Your task to perform on an android device: Open Chrome and go to settings Image 0: 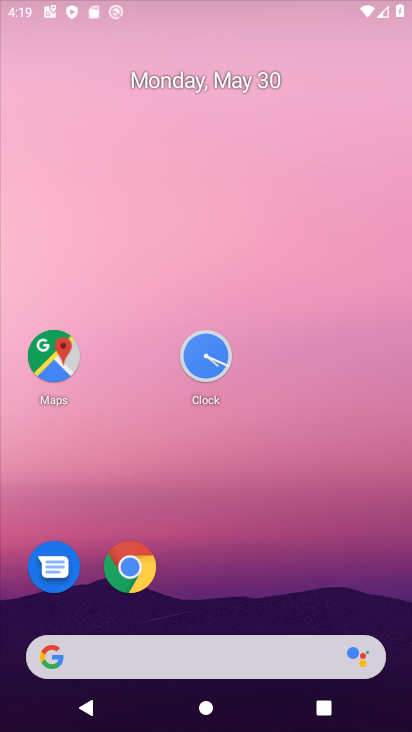
Step 0: drag from (279, 683) to (171, 199)
Your task to perform on an android device: Open Chrome and go to settings Image 1: 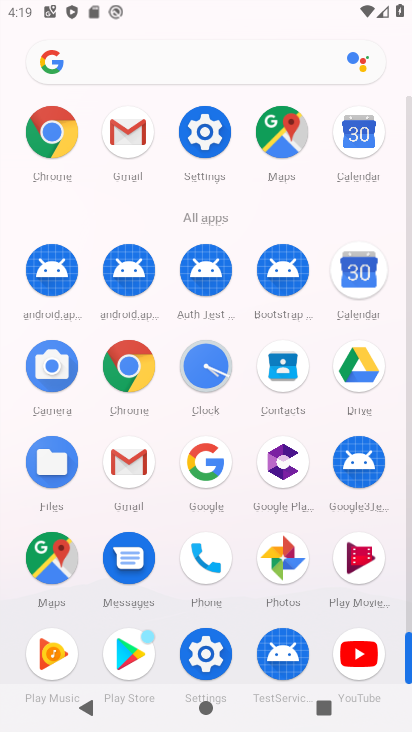
Step 1: click (59, 137)
Your task to perform on an android device: Open Chrome and go to settings Image 2: 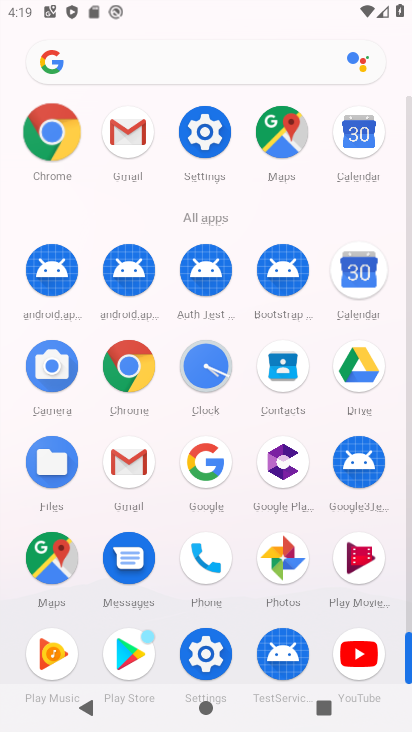
Step 2: click (59, 137)
Your task to perform on an android device: Open Chrome and go to settings Image 3: 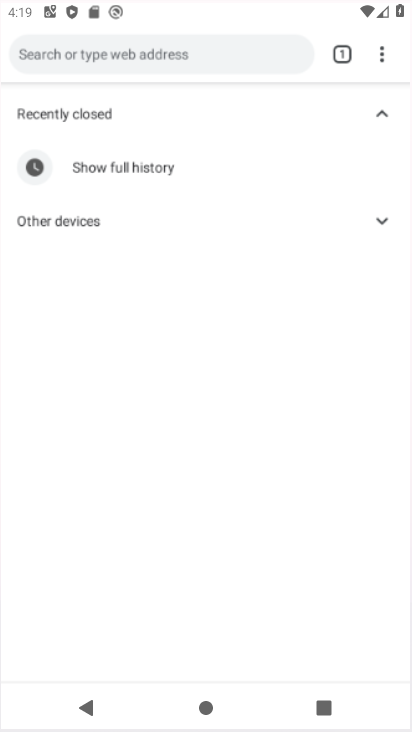
Step 3: click (60, 137)
Your task to perform on an android device: Open Chrome and go to settings Image 4: 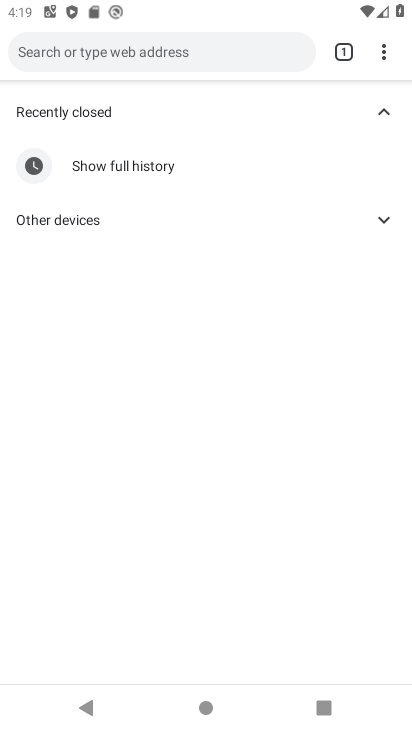
Step 4: press back button
Your task to perform on an android device: Open Chrome and go to settings Image 5: 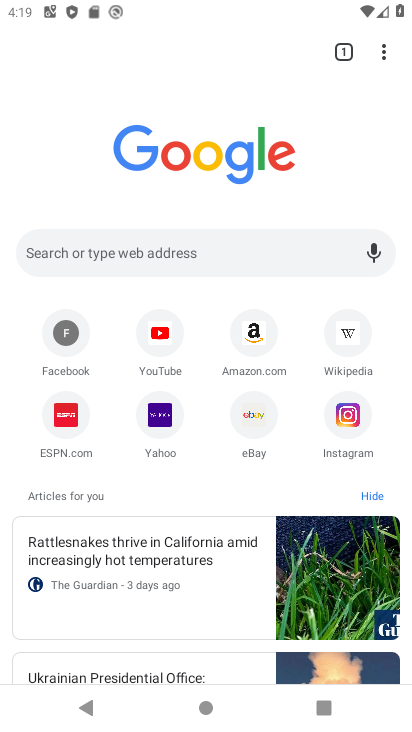
Step 5: click (384, 57)
Your task to perform on an android device: Open Chrome and go to settings Image 6: 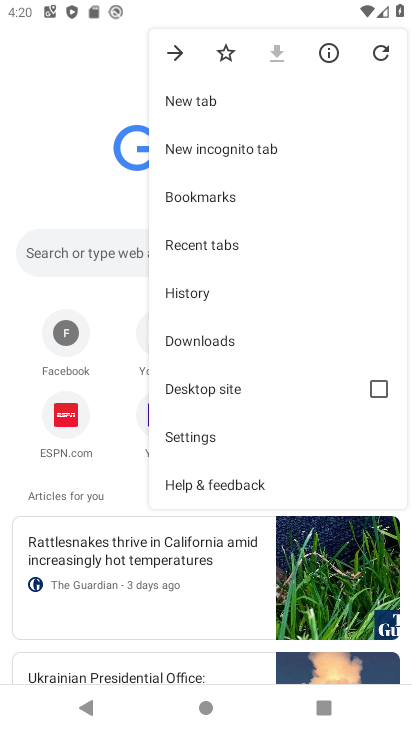
Step 6: click (181, 434)
Your task to perform on an android device: Open Chrome and go to settings Image 7: 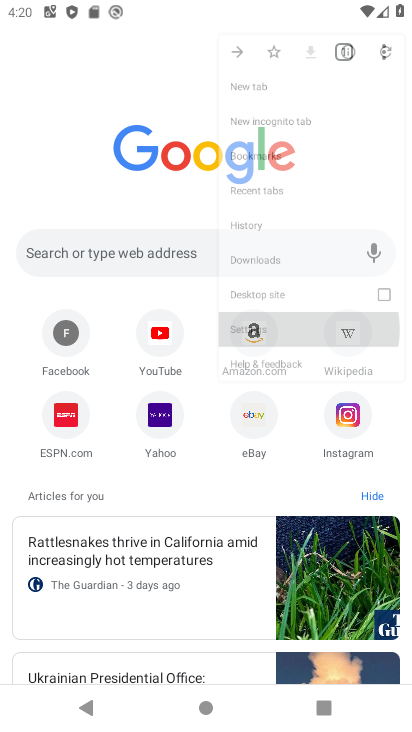
Step 7: click (181, 435)
Your task to perform on an android device: Open Chrome and go to settings Image 8: 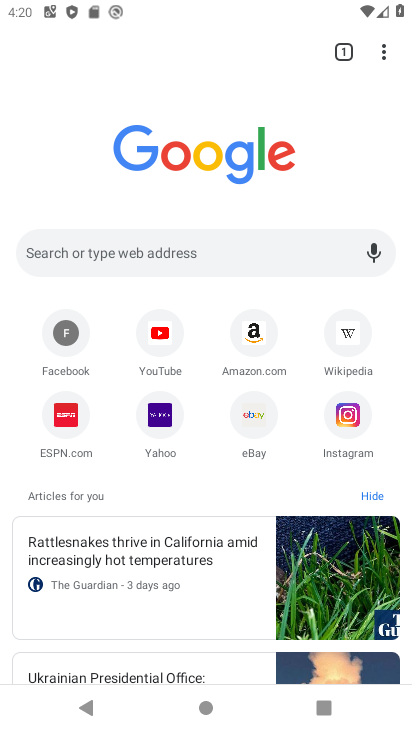
Step 8: click (181, 435)
Your task to perform on an android device: Open Chrome and go to settings Image 9: 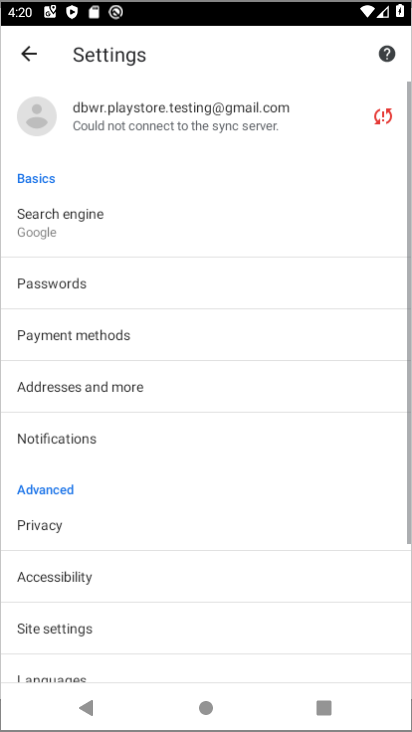
Step 9: click (181, 435)
Your task to perform on an android device: Open Chrome and go to settings Image 10: 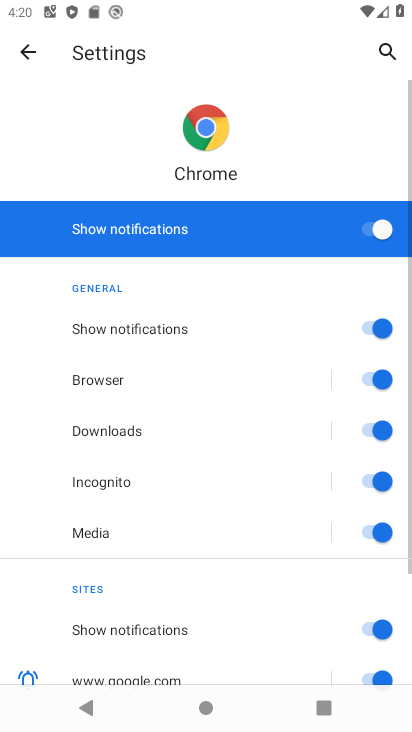
Step 10: click (24, 57)
Your task to perform on an android device: Open Chrome and go to settings Image 11: 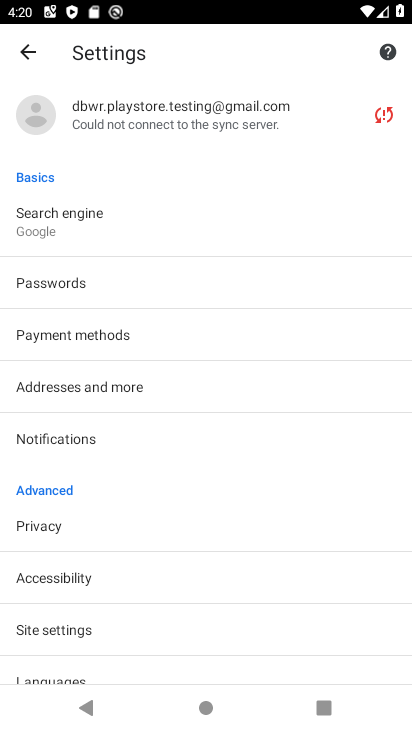
Step 11: task complete